Your task to perform on an android device: change alarm snooze length Image 0: 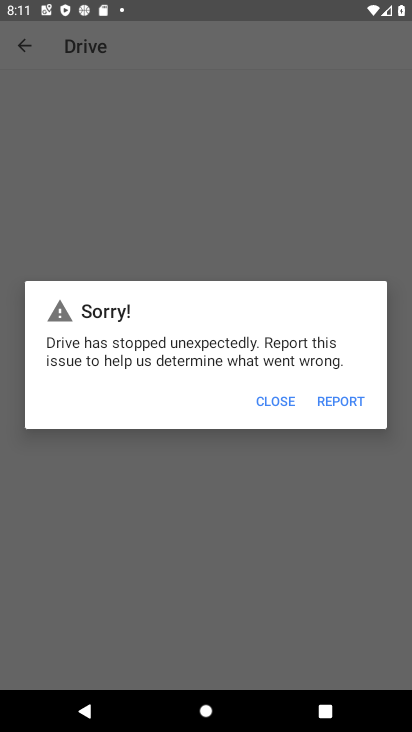
Step 0: press home button
Your task to perform on an android device: change alarm snooze length Image 1: 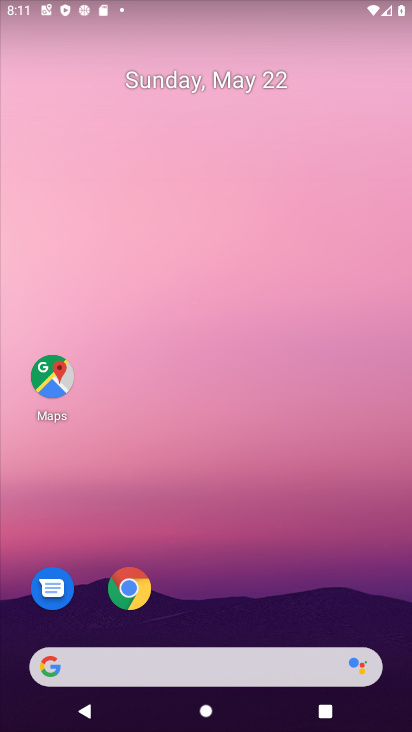
Step 1: drag from (225, 554) to (257, 219)
Your task to perform on an android device: change alarm snooze length Image 2: 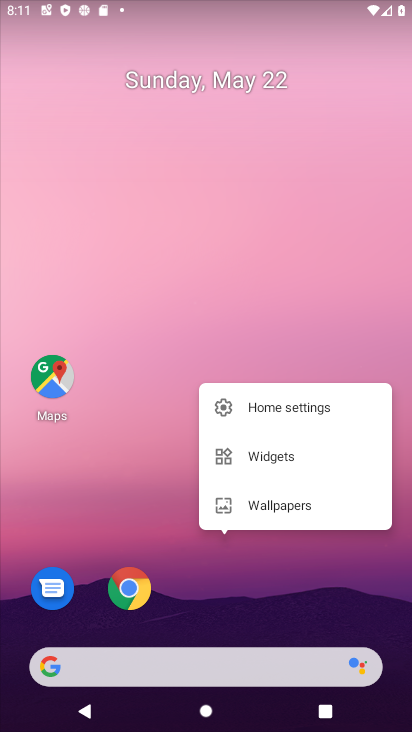
Step 2: click (257, 219)
Your task to perform on an android device: change alarm snooze length Image 3: 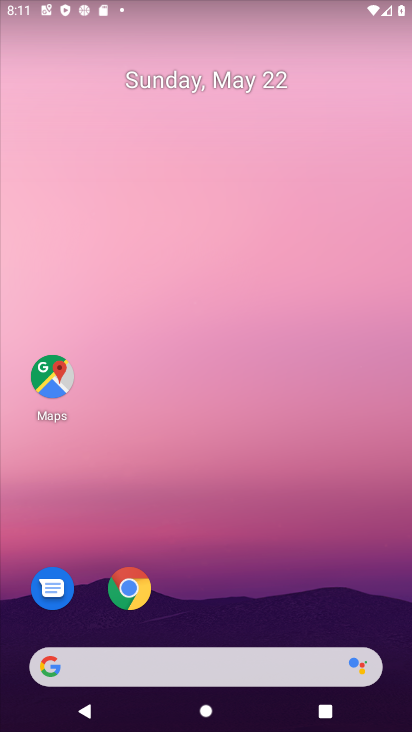
Step 3: drag from (232, 525) to (207, 7)
Your task to perform on an android device: change alarm snooze length Image 4: 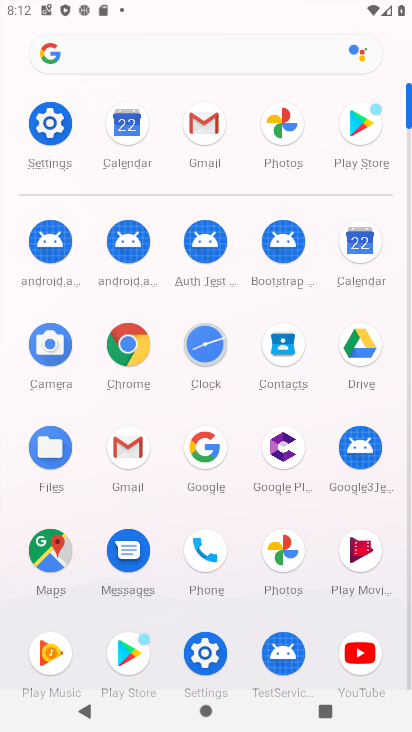
Step 4: click (204, 344)
Your task to perform on an android device: change alarm snooze length Image 5: 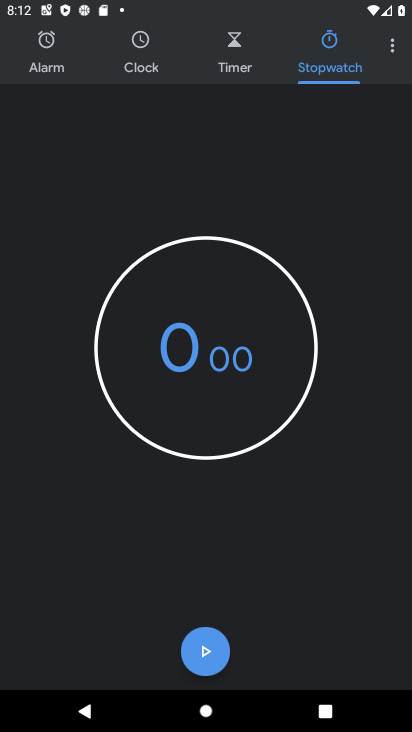
Step 5: click (392, 40)
Your task to perform on an android device: change alarm snooze length Image 6: 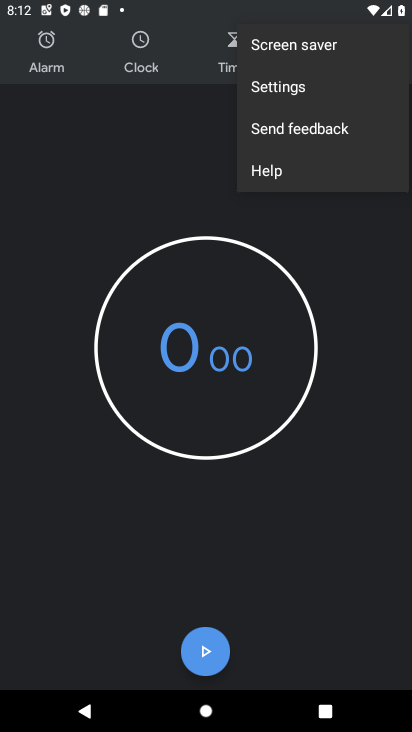
Step 6: click (284, 81)
Your task to perform on an android device: change alarm snooze length Image 7: 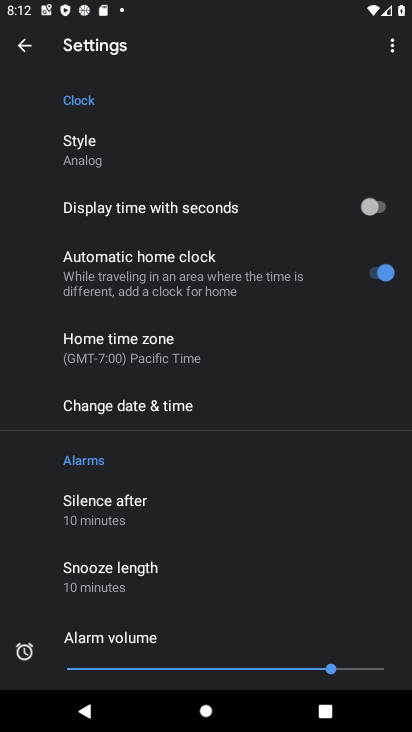
Step 7: click (115, 570)
Your task to perform on an android device: change alarm snooze length Image 8: 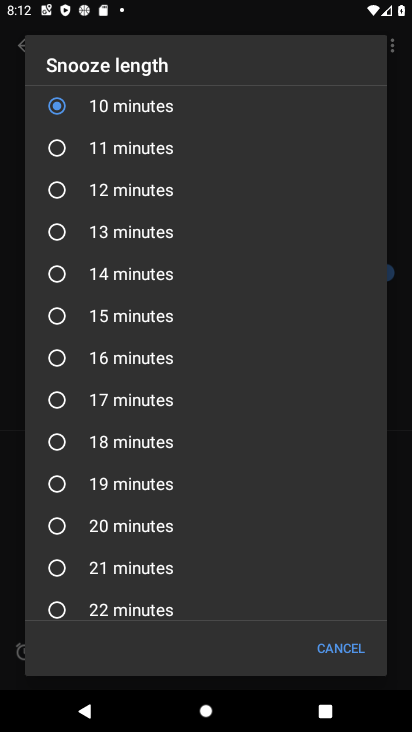
Step 8: click (56, 235)
Your task to perform on an android device: change alarm snooze length Image 9: 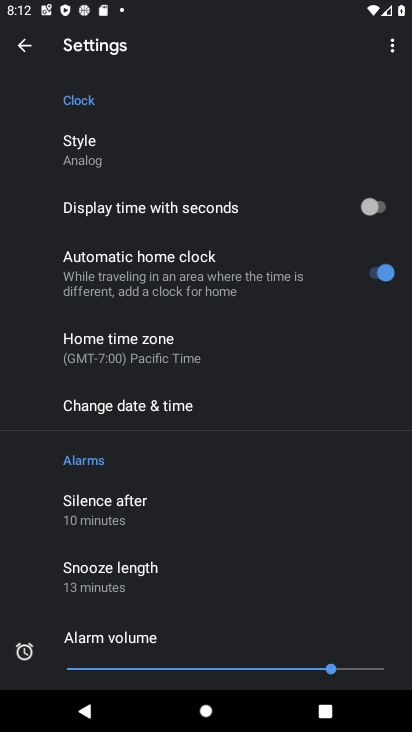
Step 9: task complete